Your task to perform on an android device: Go to settings Image 0: 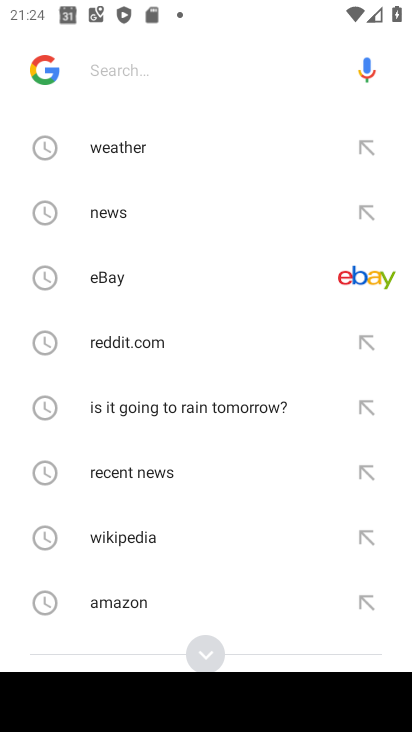
Step 0: press home button
Your task to perform on an android device: Go to settings Image 1: 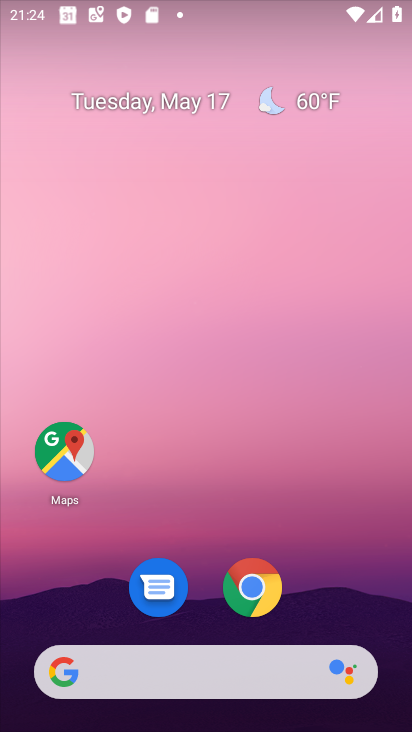
Step 1: drag from (208, 453) to (208, 117)
Your task to perform on an android device: Go to settings Image 2: 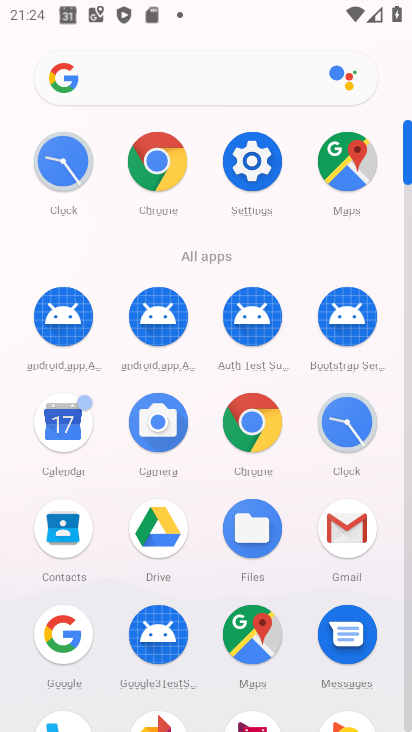
Step 2: click (258, 181)
Your task to perform on an android device: Go to settings Image 3: 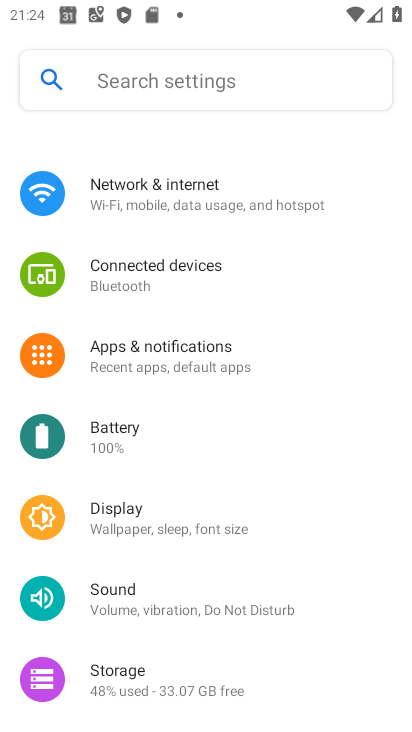
Step 3: task complete